Your task to perform on an android device: change the clock display to show seconds Image 0: 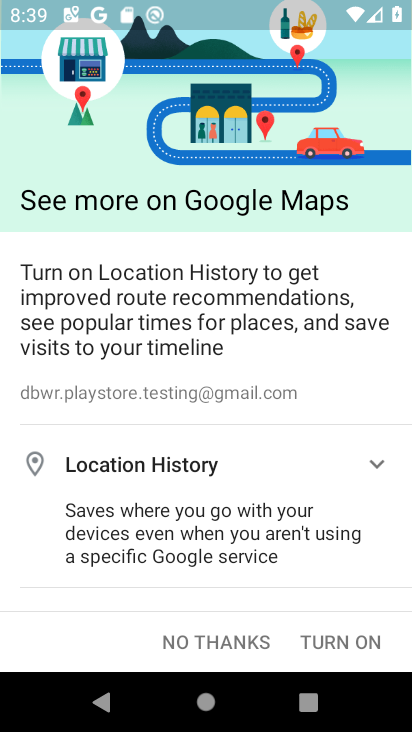
Step 0: press home button
Your task to perform on an android device: change the clock display to show seconds Image 1: 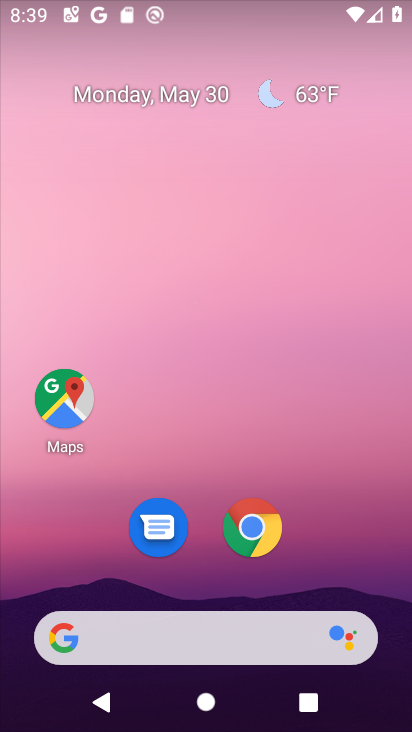
Step 1: drag from (294, 565) to (300, 228)
Your task to perform on an android device: change the clock display to show seconds Image 2: 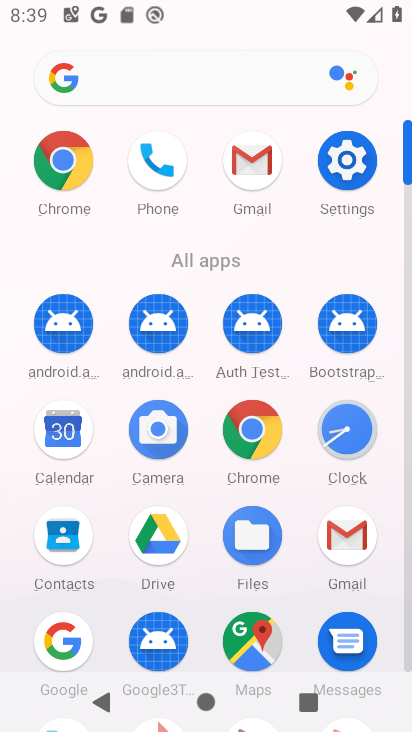
Step 2: click (341, 438)
Your task to perform on an android device: change the clock display to show seconds Image 3: 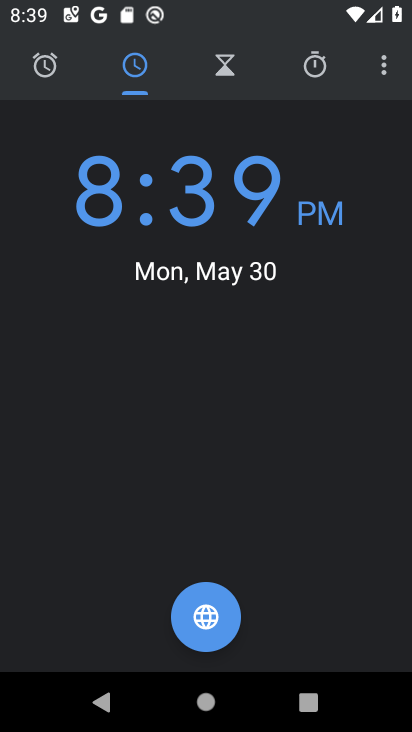
Step 3: click (389, 54)
Your task to perform on an android device: change the clock display to show seconds Image 4: 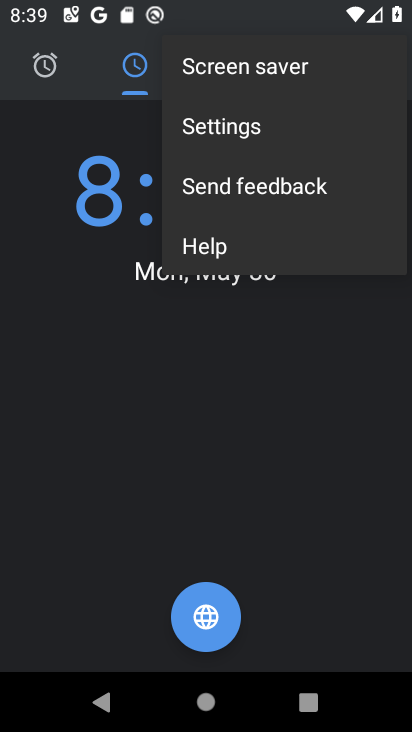
Step 4: click (254, 136)
Your task to perform on an android device: change the clock display to show seconds Image 5: 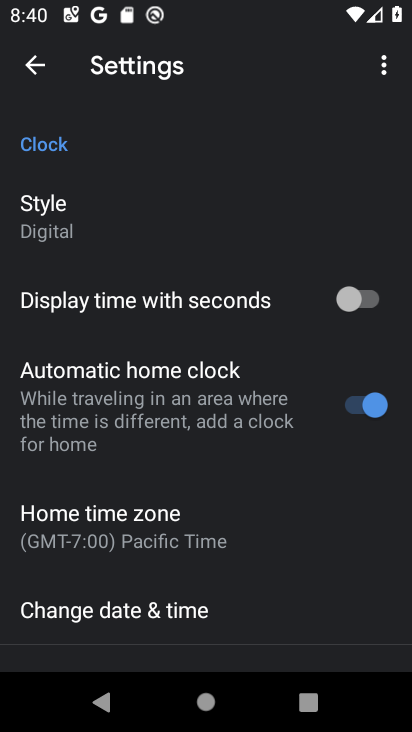
Step 5: drag from (173, 549) to (190, 242)
Your task to perform on an android device: change the clock display to show seconds Image 6: 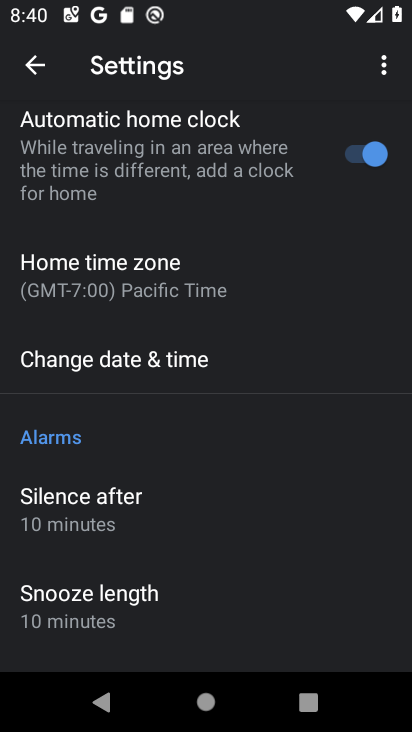
Step 6: drag from (217, 509) to (221, 252)
Your task to perform on an android device: change the clock display to show seconds Image 7: 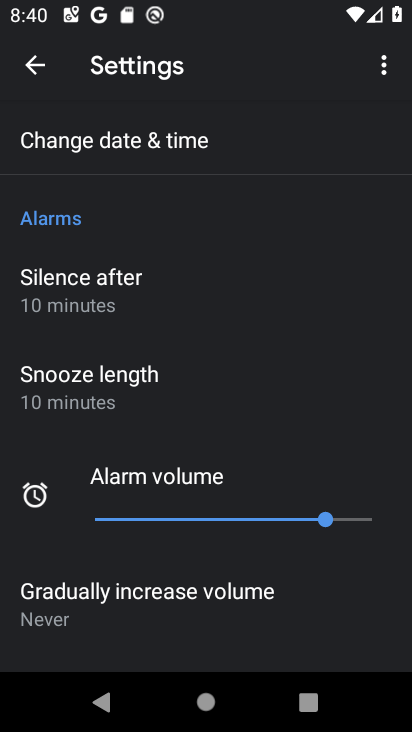
Step 7: drag from (147, 293) to (164, 528)
Your task to perform on an android device: change the clock display to show seconds Image 8: 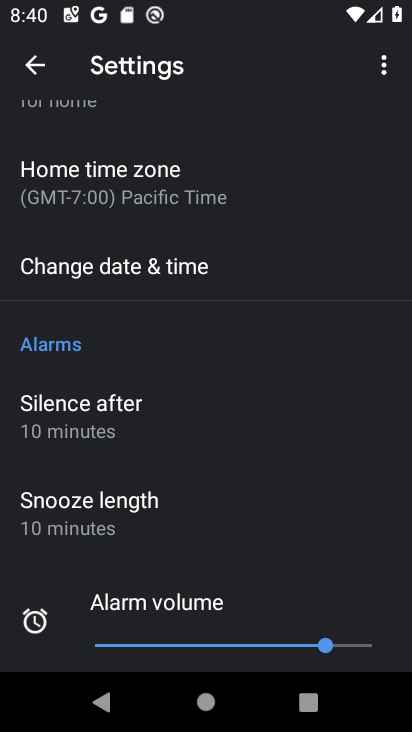
Step 8: drag from (230, 283) to (213, 533)
Your task to perform on an android device: change the clock display to show seconds Image 9: 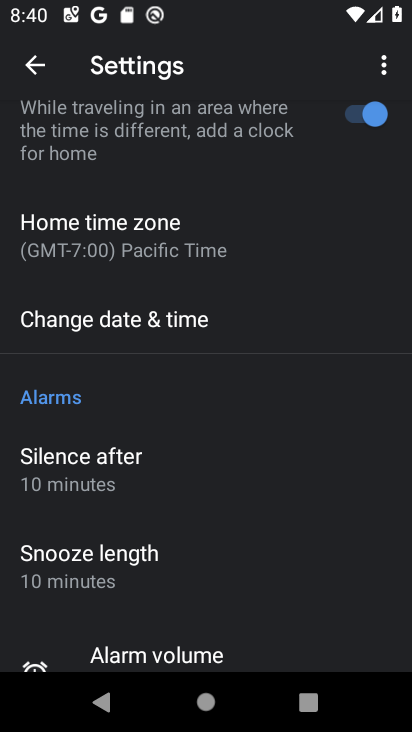
Step 9: drag from (295, 252) to (264, 523)
Your task to perform on an android device: change the clock display to show seconds Image 10: 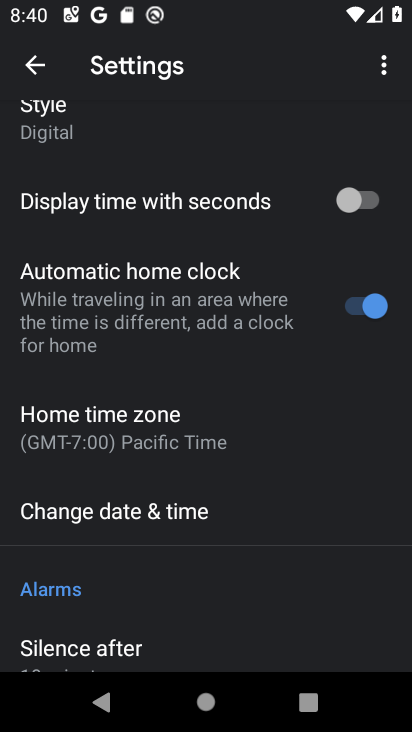
Step 10: click (342, 185)
Your task to perform on an android device: change the clock display to show seconds Image 11: 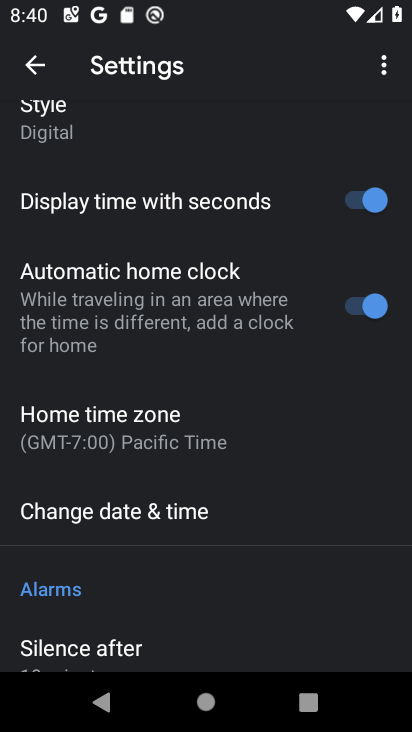
Step 11: task complete